Your task to perform on an android device: delete a single message in the gmail app Image 0: 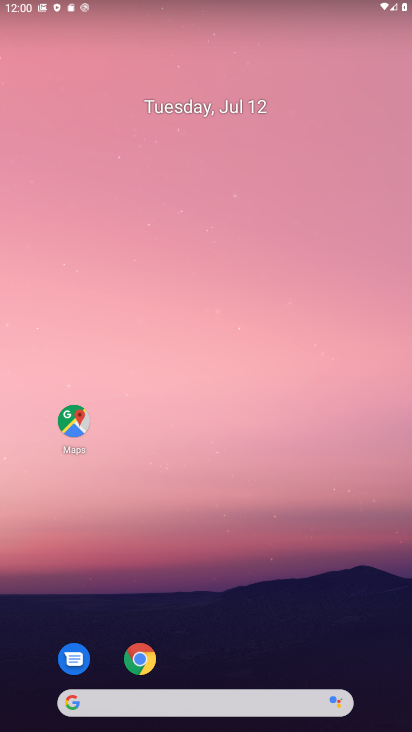
Step 0: drag from (306, 633) to (264, 2)
Your task to perform on an android device: delete a single message in the gmail app Image 1: 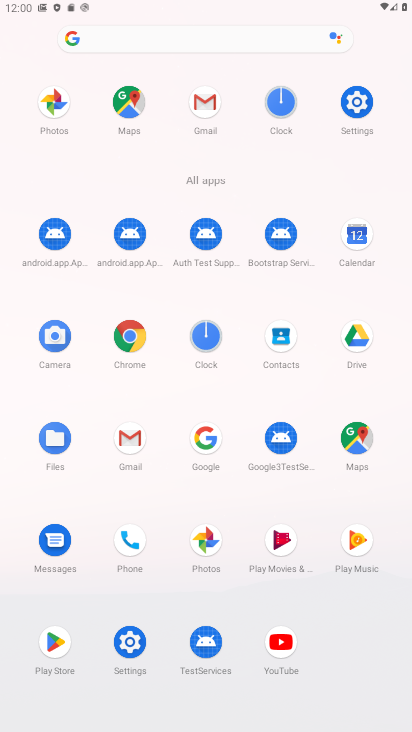
Step 1: click (127, 443)
Your task to perform on an android device: delete a single message in the gmail app Image 2: 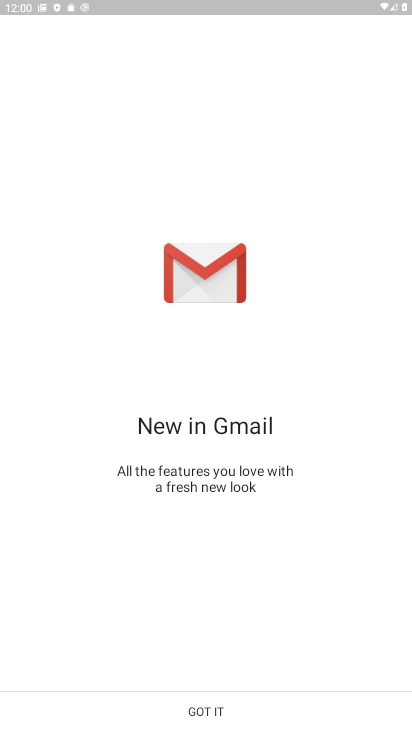
Step 2: click (205, 713)
Your task to perform on an android device: delete a single message in the gmail app Image 3: 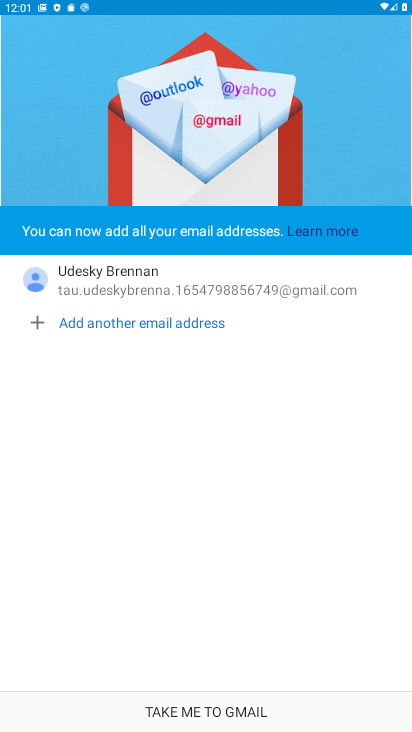
Step 3: click (150, 268)
Your task to perform on an android device: delete a single message in the gmail app Image 4: 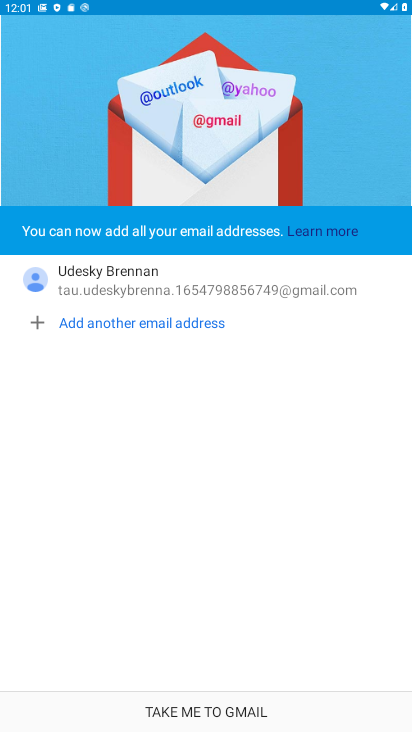
Step 4: click (173, 700)
Your task to perform on an android device: delete a single message in the gmail app Image 5: 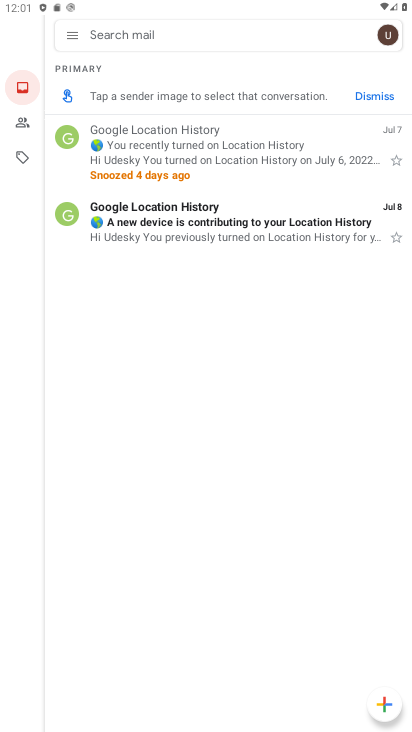
Step 5: click (152, 218)
Your task to perform on an android device: delete a single message in the gmail app Image 6: 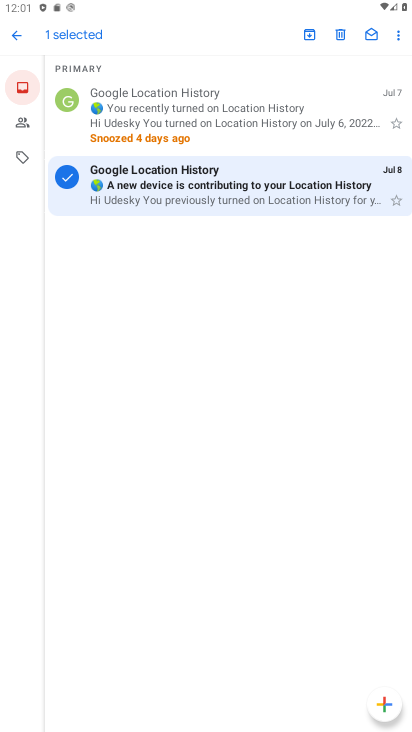
Step 6: click (340, 35)
Your task to perform on an android device: delete a single message in the gmail app Image 7: 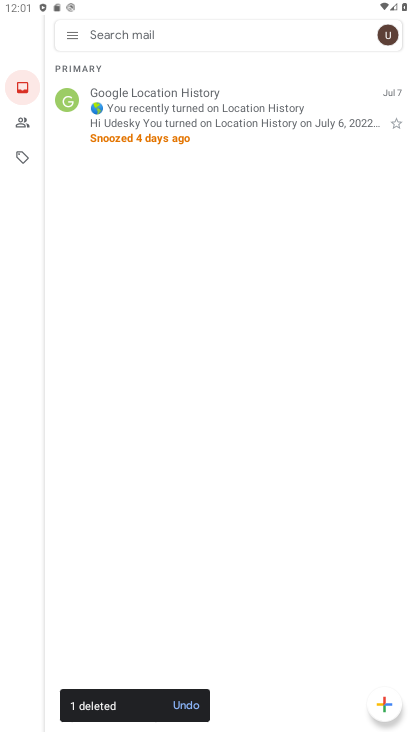
Step 7: task complete